Your task to perform on an android device: change alarm snooze length Image 0: 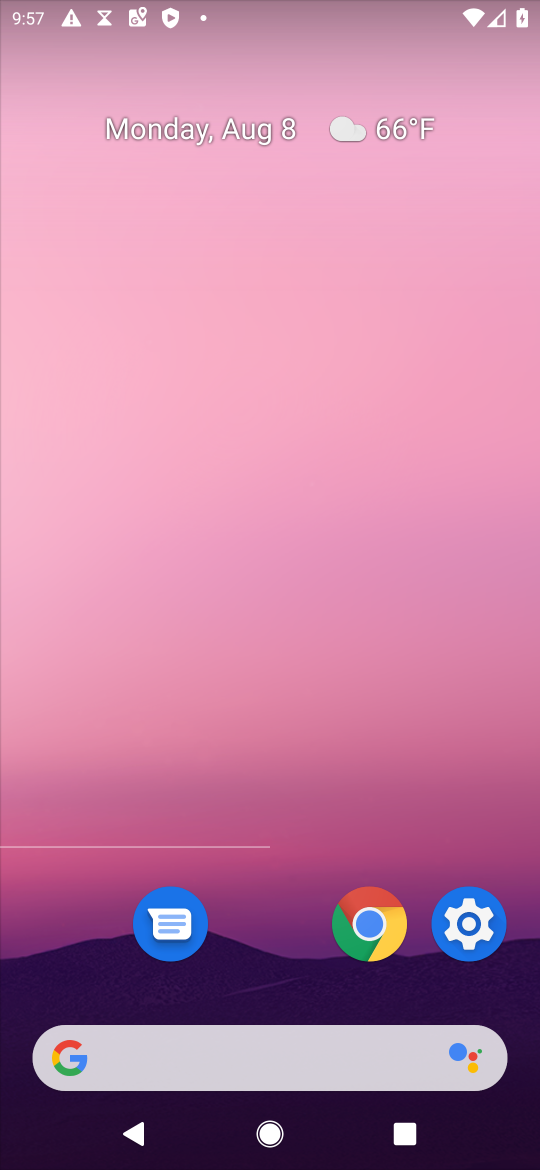
Step 0: drag from (322, 952) to (373, 137)
Your task to perform on an android device: change alarm snooze length Image 1: 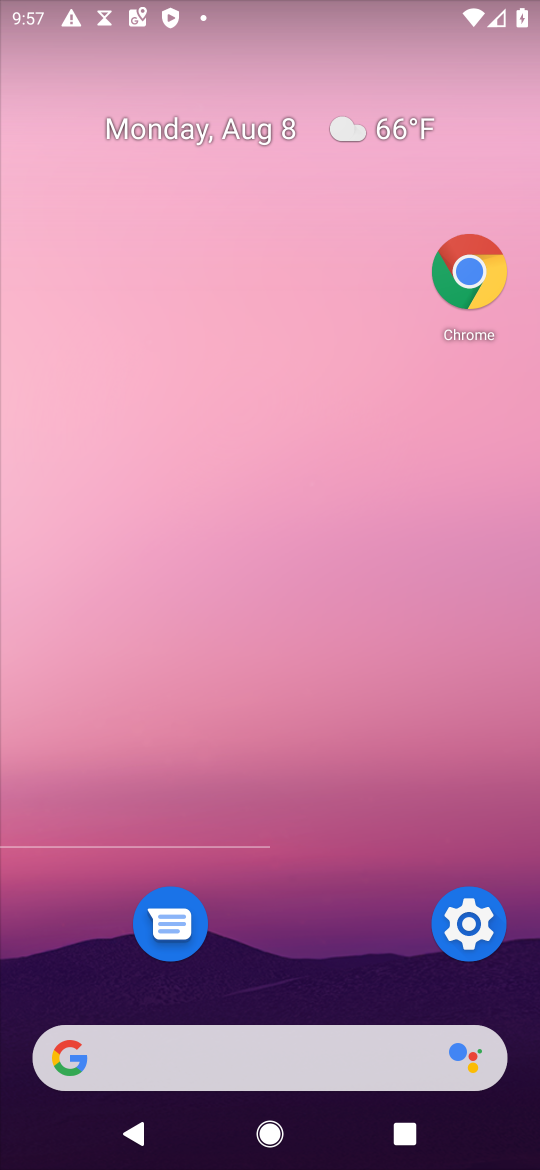
Step 1: click (347, 918)
Your task to perform on an android device: change alarm snooze length Image 2: 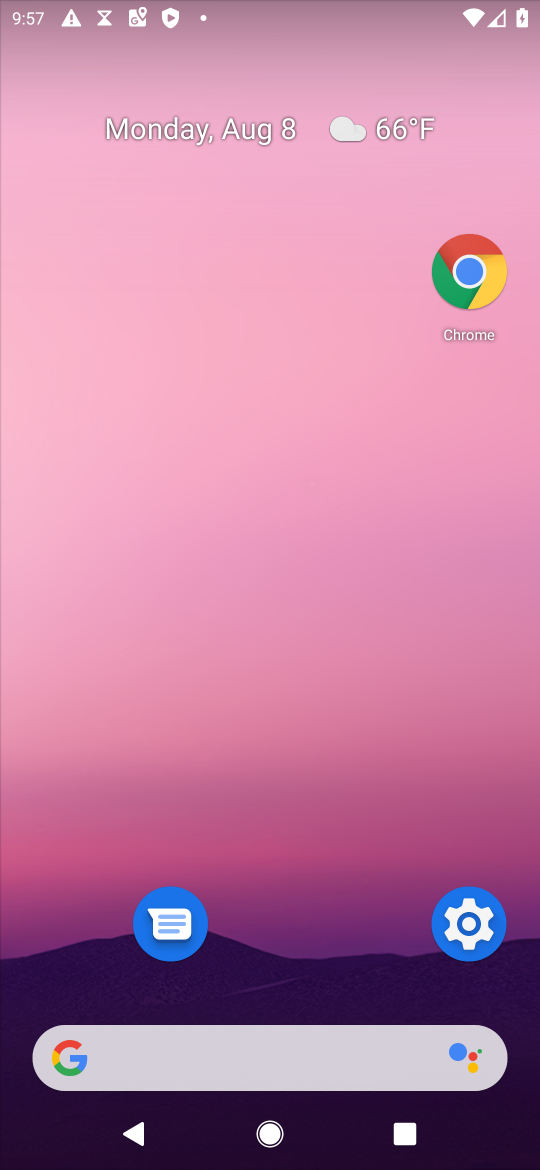
Step 2: drag from (318, 1004) to (401, 27)
Your task to perform on an android device: change alarm snooze length Image 3: 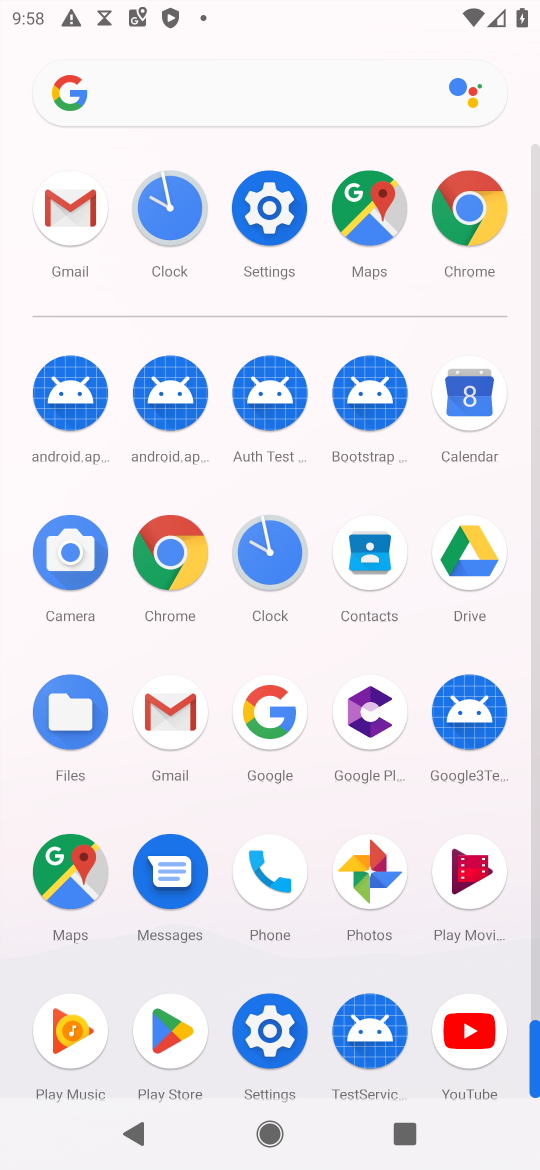
Step 3: click (271, 555)
Your task to perform on an android device: change alarm snooze length Image 4: 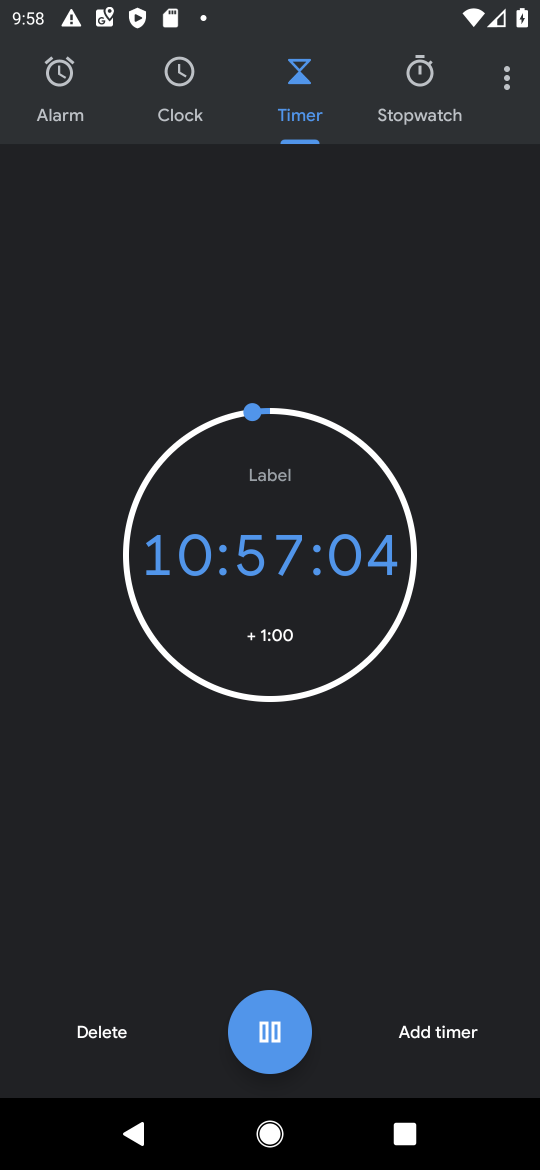
Step 4: click (52, 78)
Your task to perform on an android device: change alarm snooze length Image 5: 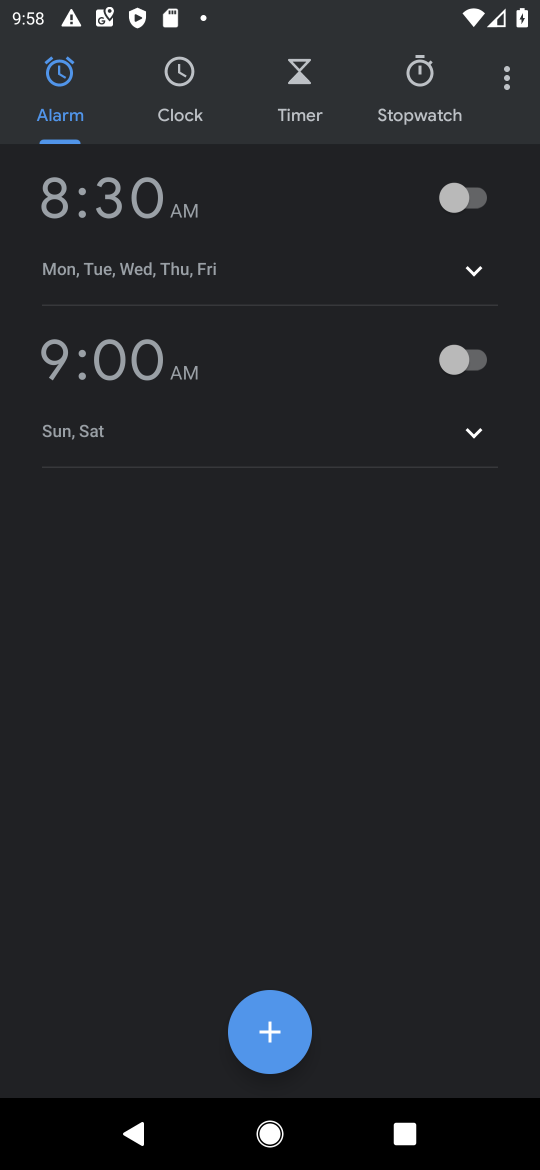
Step 5: click (506, 84)
Your task to perform on an android device: change alarm snooze length Image 6: 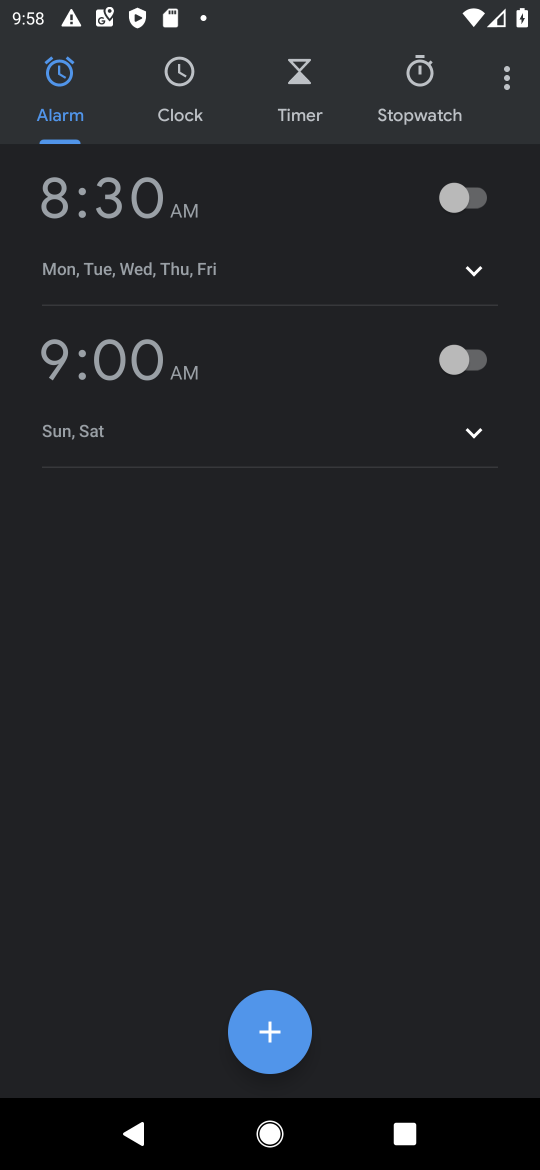
Step 6: click (512, 88)
Your task to perform on an android device: change alarm snooze length Image 7: 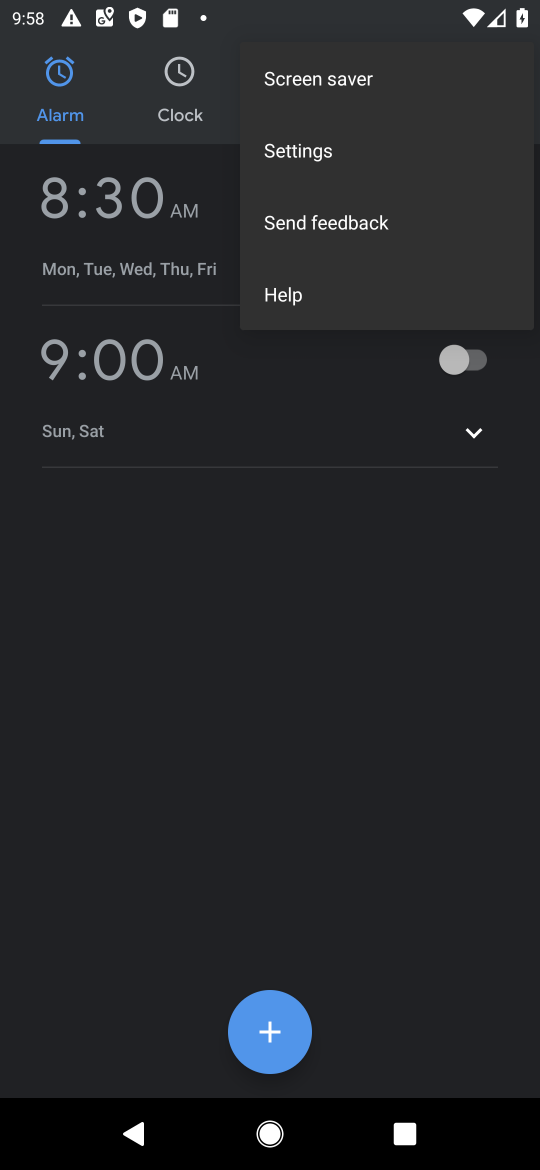
Step 7: click (294, 145)
Your task to perform on an android device: change alarm snooze length Image 8: 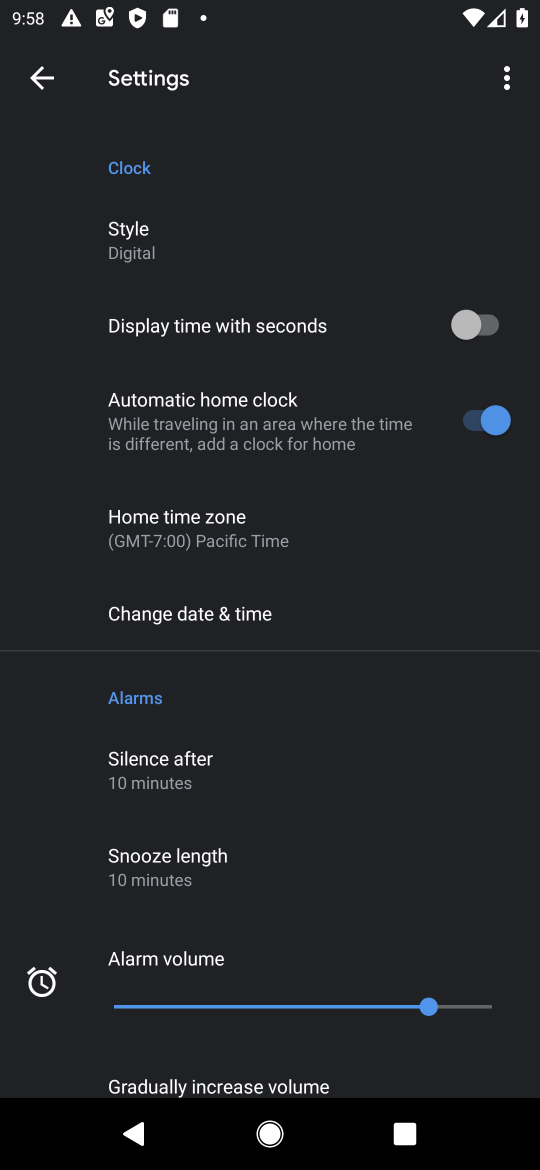
Step 8: drag from (237, 908) to (240, 602)
Your task to perform on an android device: change alarm snooze length Image 9: 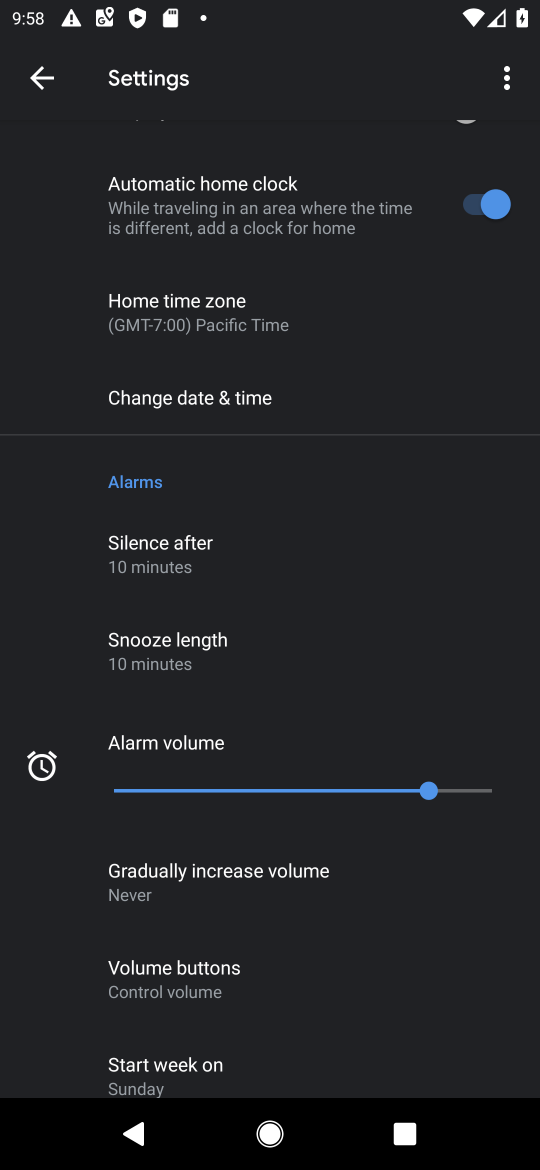
Step 9: click (158, 638)
Your task to perform on an android device: change alarm snooze length Image 10: 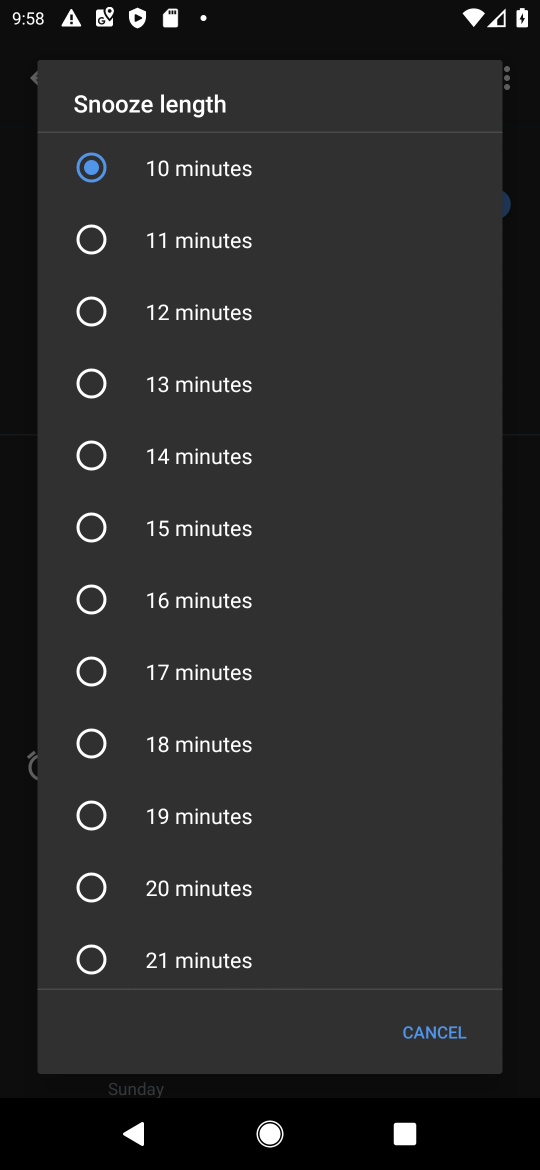
Step 10: click (165, 316)
Your task to perform on an android device: change alarm snooze length Image 11: 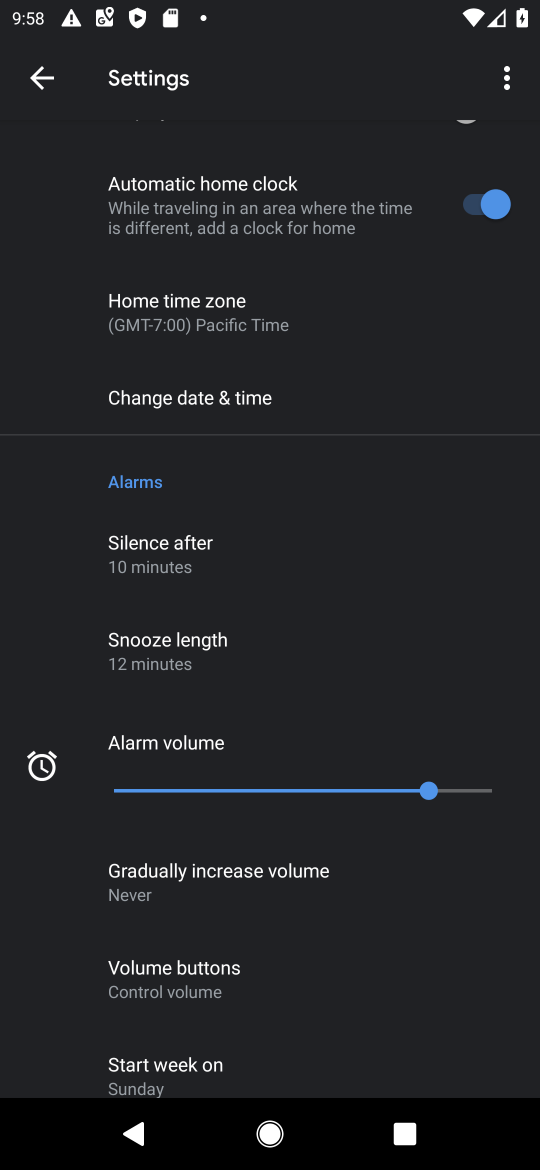
Step 11: task complete